Your task to perform on an android device: Check the settings for the Pandora app Image 0: 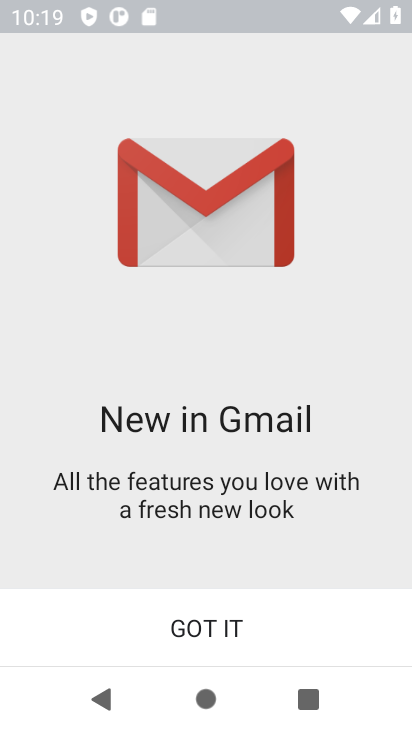
Step 0: press home button
Your task to perform on an android device: Check the settings for the Pandora app Image 1: 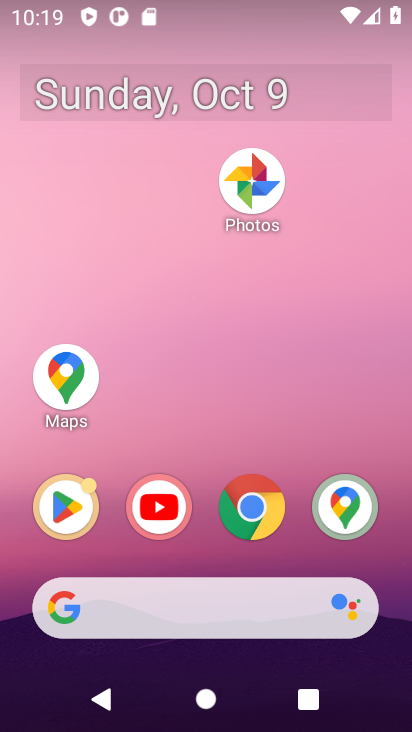
Step 1: task complete